Your task to perform on an android device: toggle pop-ups in chrome Image 0: 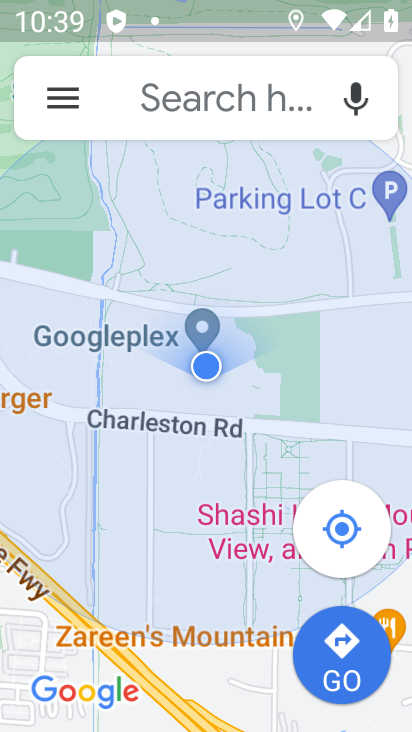
Step 0: press home button
Your task to perform on an android device: toggle pop-ups in chrome Image 1: 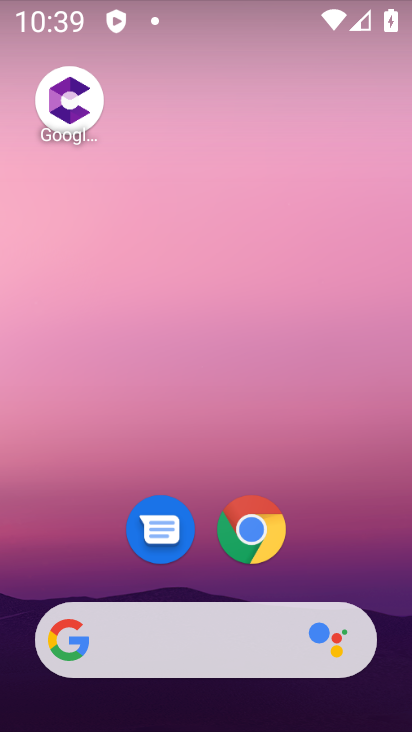
Step 1: click (244, 532)
Your task to perform on an android device: toggle pop-ups in chrome Image 2: 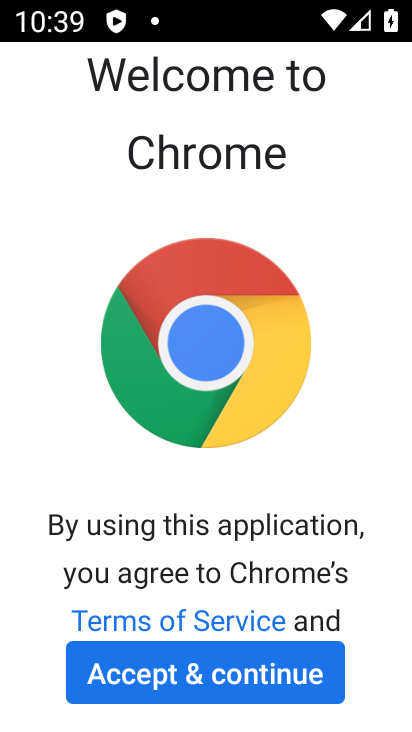
Step 2: click (191, 665)
Your task to perform on an android device: toggle pop-ups in chrome Image 3: 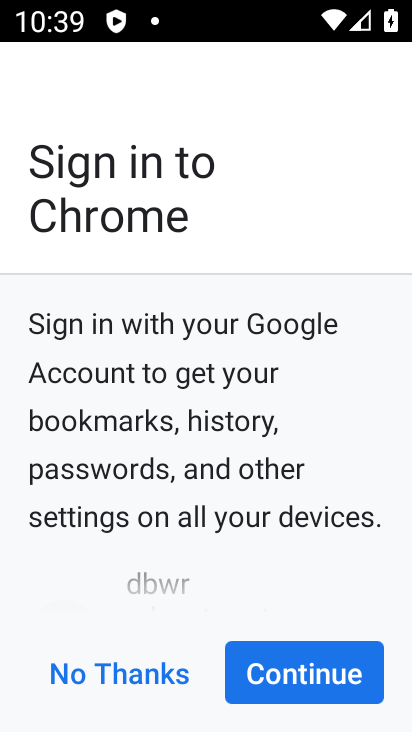
Step 3: click (308, 672)
Your task to perform on an android device: toggle pop-ups in chrome Image 4: 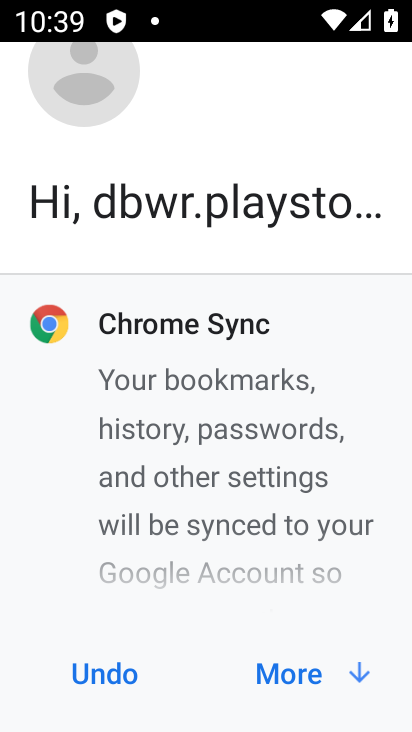
Step 4: click (302, 674)
Your task to perform on an android device: toggle pop-ups in chrome Image 5: 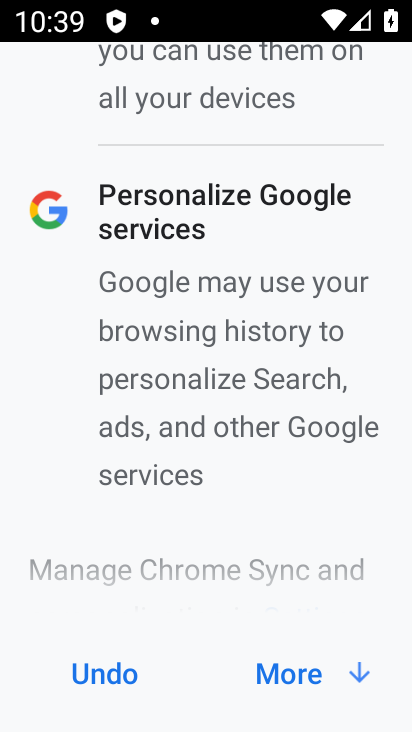
Step 5: click (288, 669)
Your task to perform on an android device: toggle pop-ups in chrome Image 6: 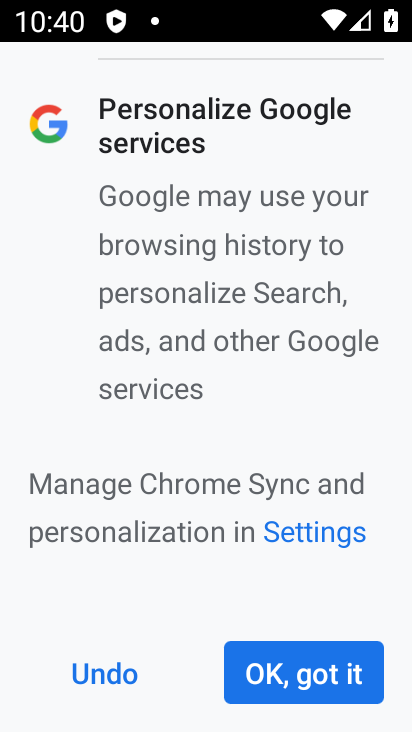
Step 6: click (386, 664)
Your task to perform on an android device: toggle pop-ups in chrome Image 7: 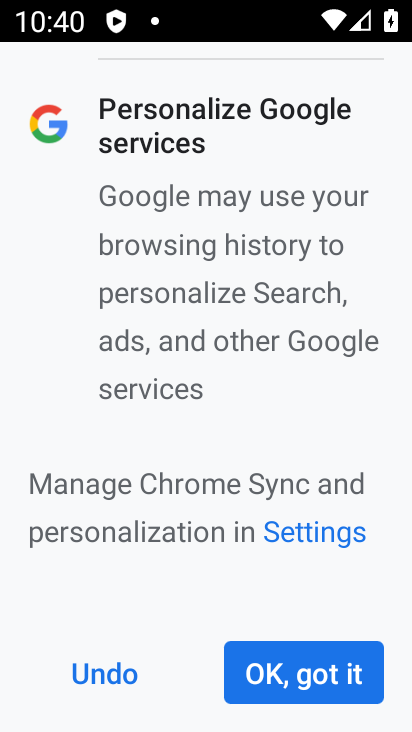
Step 7: click (334, 687)
Your task to perform on an android device: toggle pop-ups in chrome Image 8: 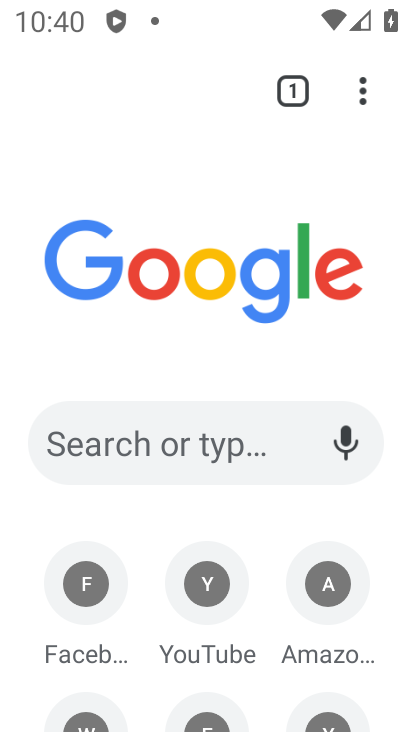
Step 8: click (365, 93)
Your task to perform on an android device: toggle pop-ups in chrome Image 9: 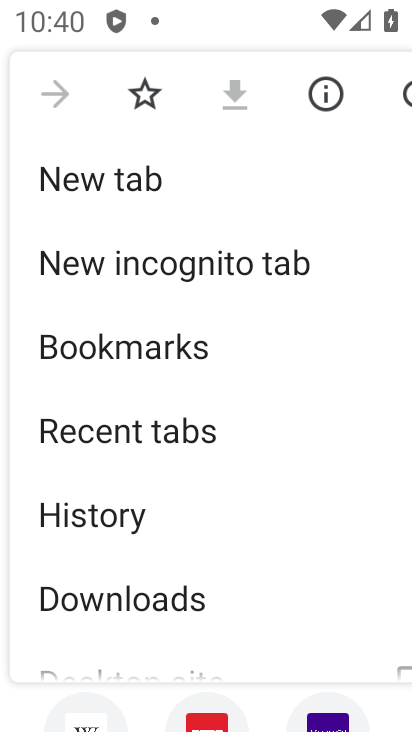
Step 9: drag from (203, 635) to (176, 378)
Your task to perform on an android device: toggle pop-ups in chrome Image 10: 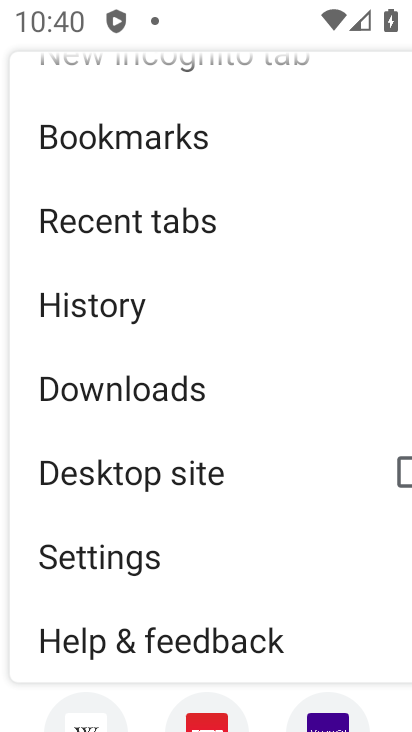
Step 10: click (109, 565)
Your task to perform on an android device: toggle pop-ups in chrome Image 11: 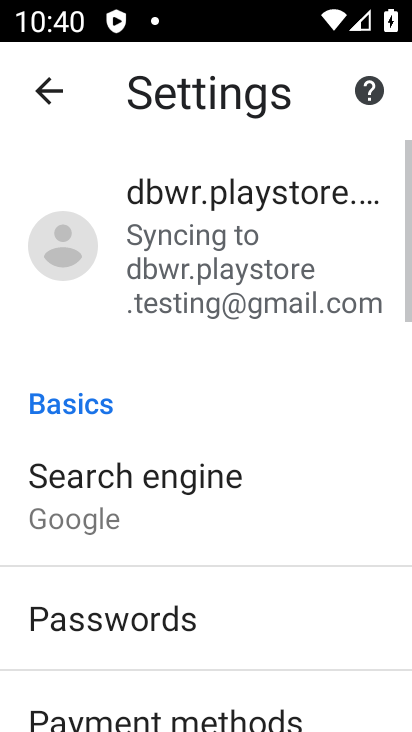
Step 11: drag from (329, 652) to (318, 299)
Your task to perform on an android device: toggle pop-ups in chrome Image 12: 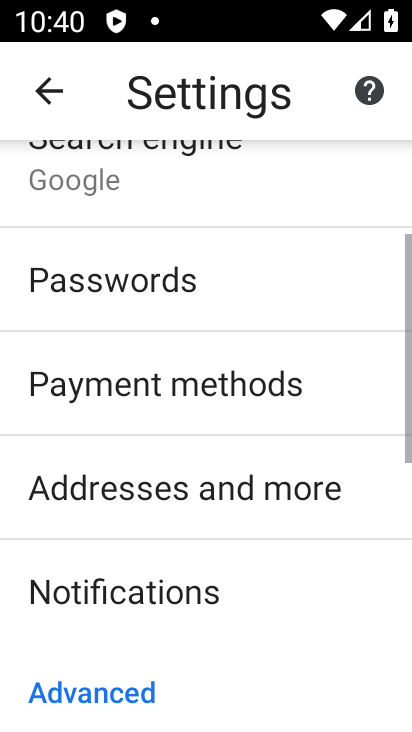
Step 12: drag from (262, 695) to (265, 258)
Your task to perform on an android device: toggle pop-ups in chrome Image 13: 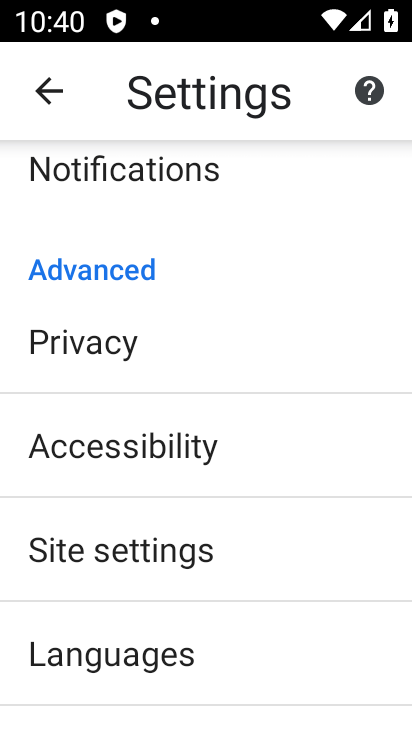
Step 13: click (148, 543)
Your task to perform on an android device: toggle pop-ups in chrome Image 14: 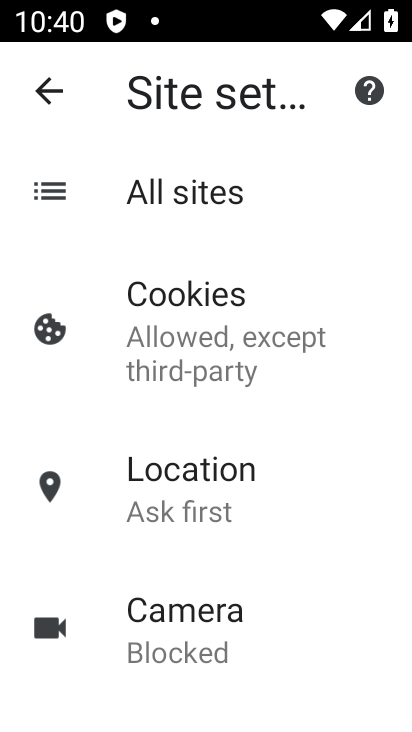
Step 14: drag from (320, 624) to (292, 125)
Your task to perform on an android device: toggle pop-ups in chrome Image 15: 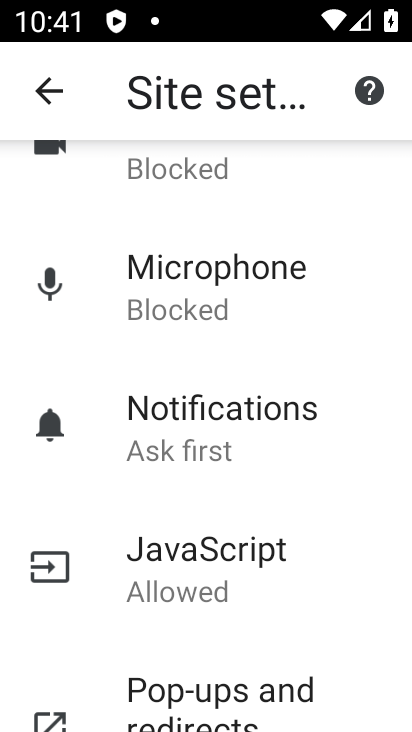
Step 15: click (277, 714)
Your task to perform on an android device: toggle pop-ups in chrome Image 16: 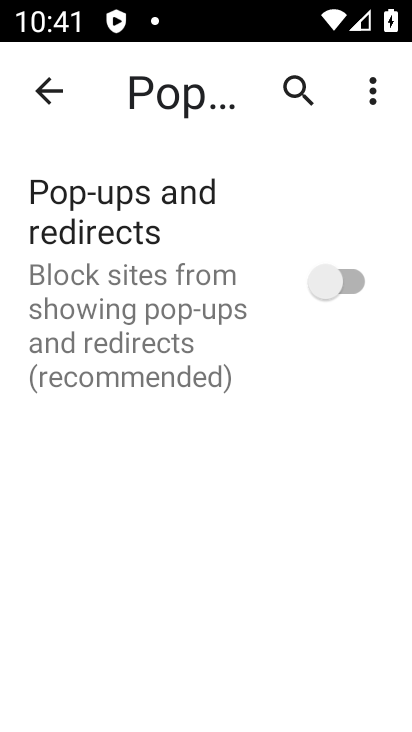
Step 16: click (345, 281)
Your task to perform on an android device: toggle pop-ups in chrome Image 17: 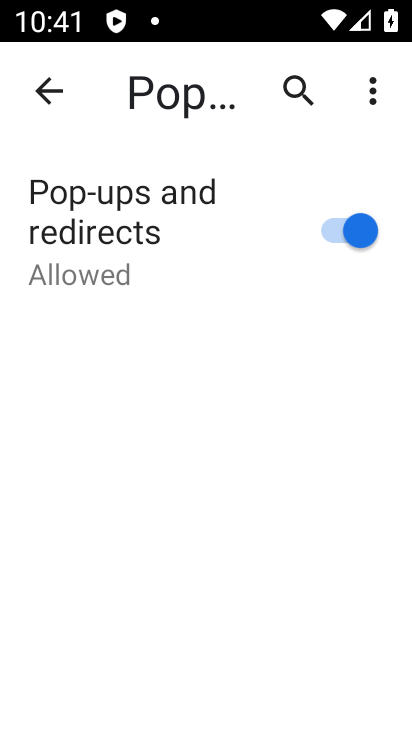
Step 17: task complete